Your task to perform on an android device: set the stopwatch Image 0: 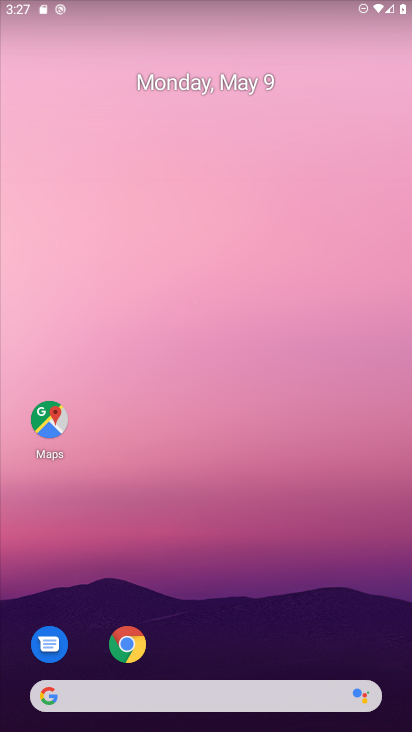
Step 0: drag from (215, 645) to (236, 50)
Your task to perform on an android device: set the stopwatch Image 1: 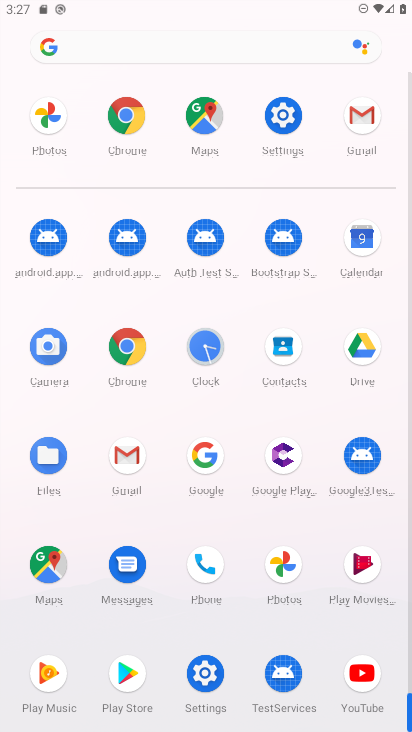
Step 1: drag from (333, 303) to (275, 730)
Your task to perform on an android device: set the stopwatch Image 2: 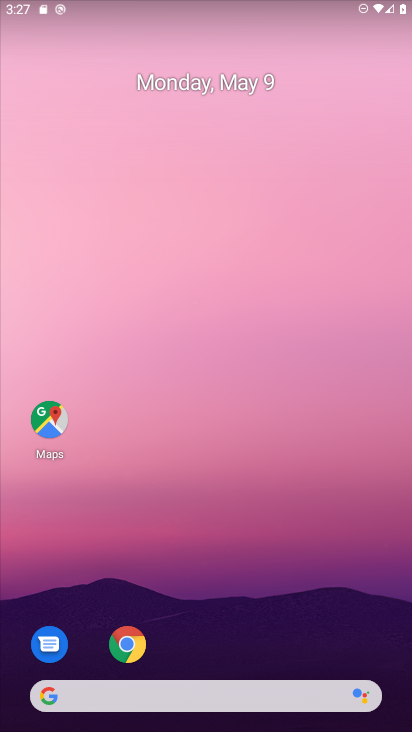
Step 2: drag from (283, 633) to (288, 15)
Your task to perform on an android device: set the stopwatch Image 3: 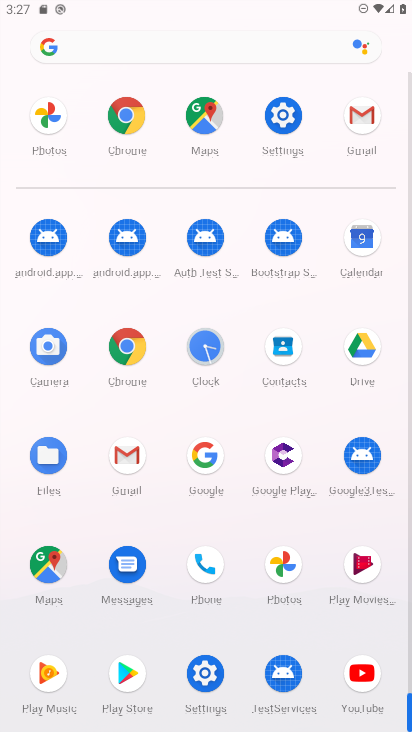
Step 3: drag from (260, 291) to (235, 540)
Your task to perform on an android device: set the stopwatch Image 4: 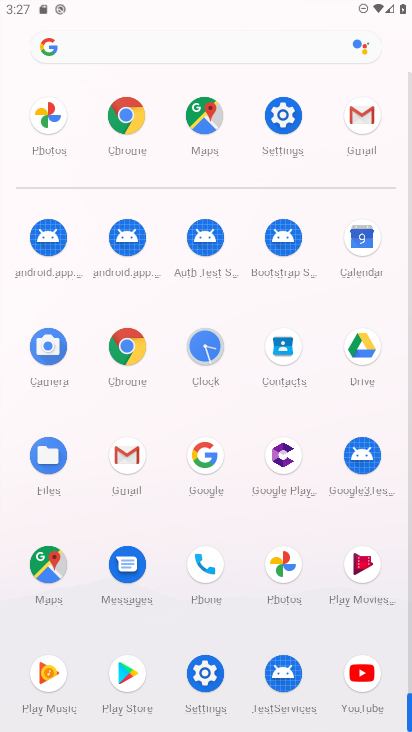
Step 4: drag from (232, 634) to (314, 321)
Your task to perform on an android device: set the stopwatch Image 5: 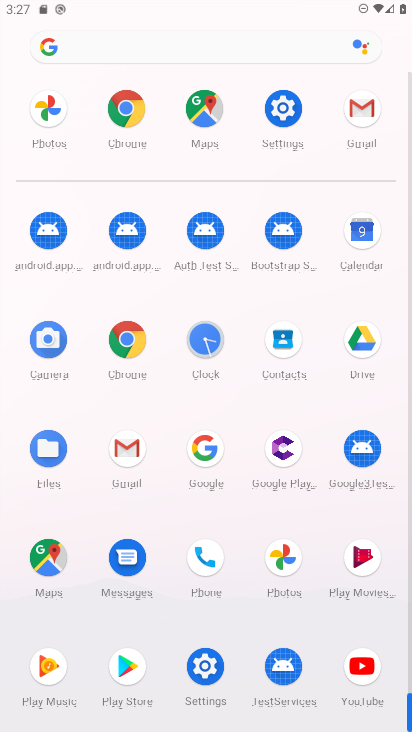
Step 5: drag from (254, 325) to (215, 645)
Your task to perform on an android device: set the stopwatch Image 6: 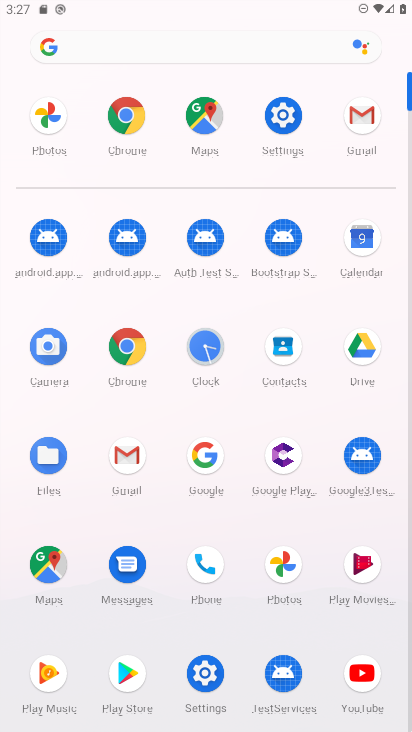
Step 6: drag from (227, 638) to (282, 103)
Your task to perform on an android device: set the stopwatch Image 7: 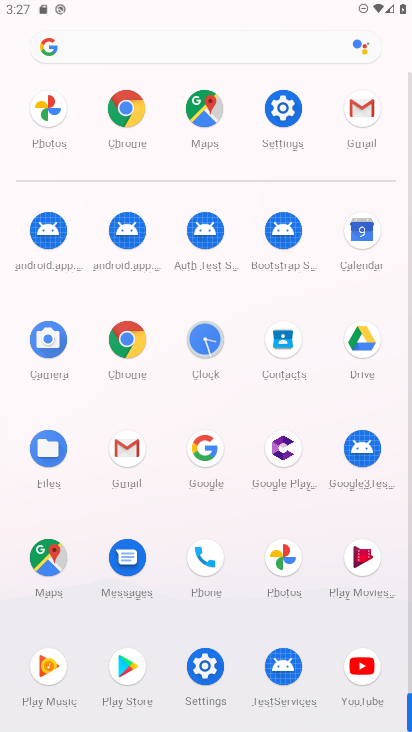
Step 7: drag from (263, 289) to (226, 585)
Your task to perform on an android device: set the stopwatch Image 8: 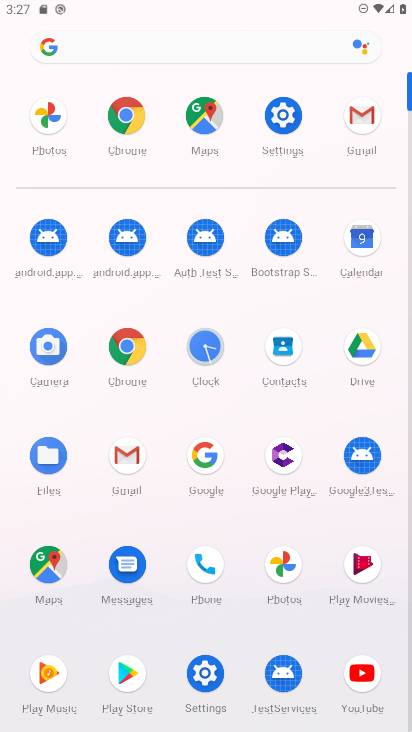
Step 8: drag from (225, 587) to (257, 177)
Your task to perform on an android device: set the stopwatch Image 9: 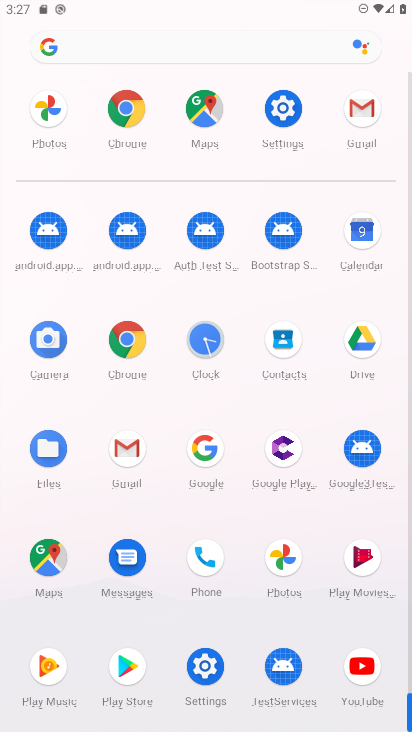
Step 9: click (212, 375)
Your task to perform on an android device: set the stopwatch Image 10: 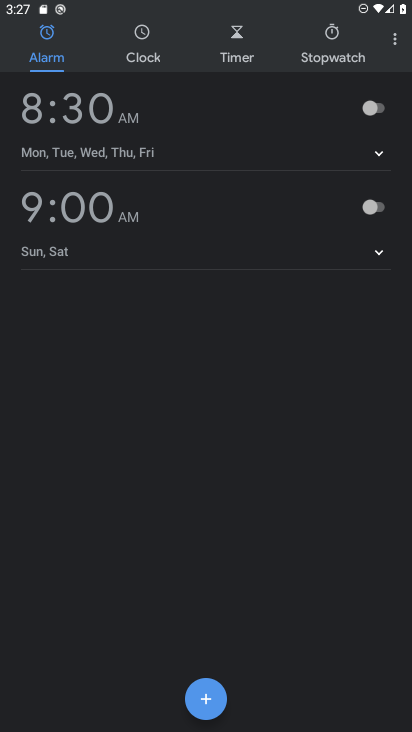
Step 10: click (331, 54)
Your task to perform on an android device: set the stopwatch Image 11: 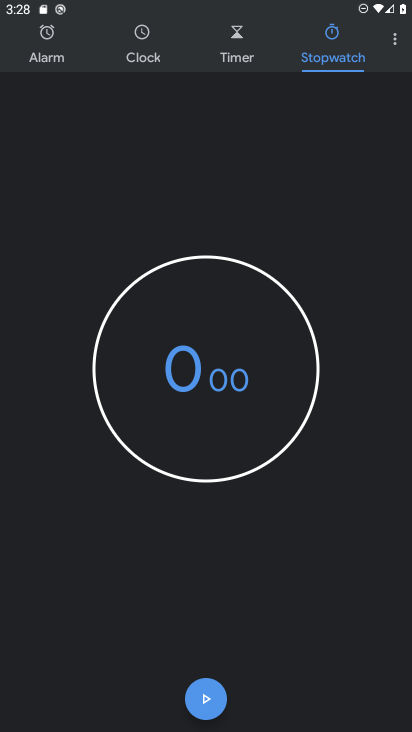
Step 11: click (222, 719)
Your task to perform on an android device: set the stopwatch Image 12: 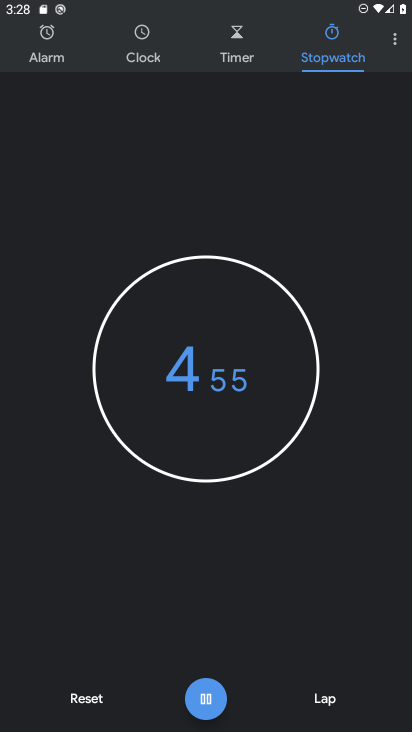
Step 12: click (208, 711)
Your task to perform on an android device: set the stopwatch Image 13: 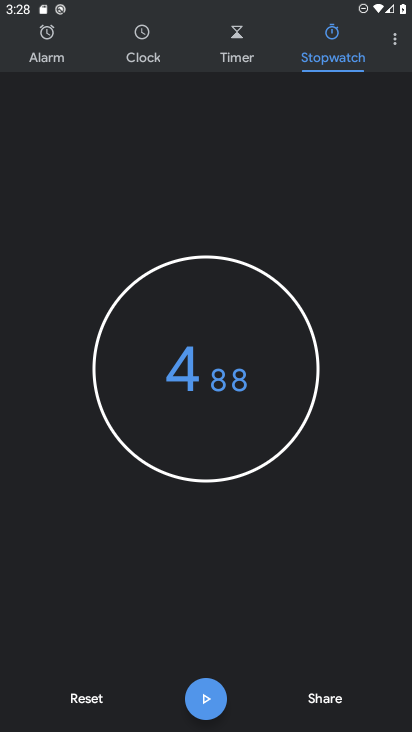
Step 13: task complete